Your task to perform on an android device: uninstall "Etsy: Buy & Sell Unique Items" Image 0: 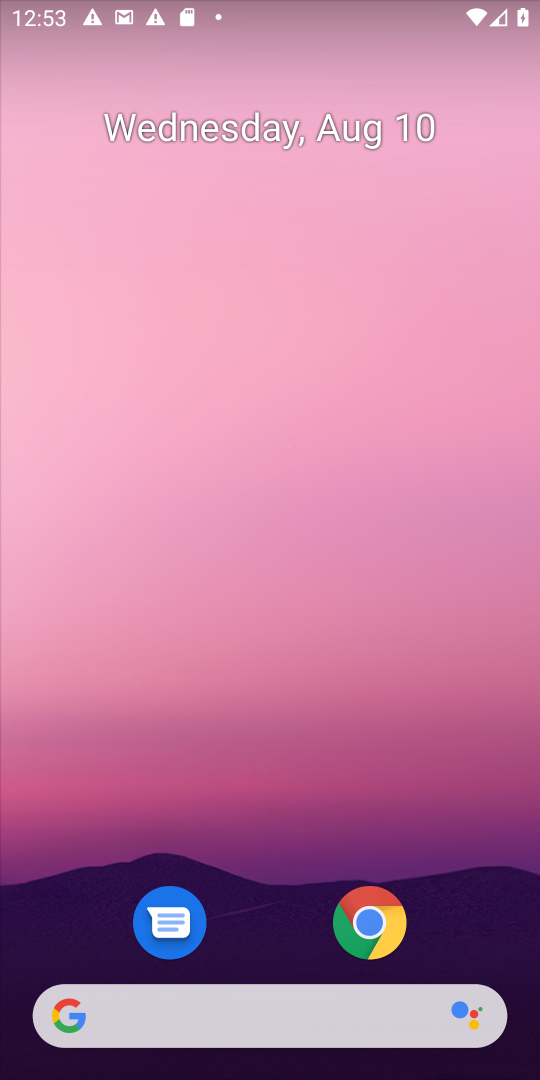
Step 0: drag from (266, 862) to (265, 357)
Your task to perform on an android device: uninstall "Etsy: Buy & Sell Unique Items" Image 1: 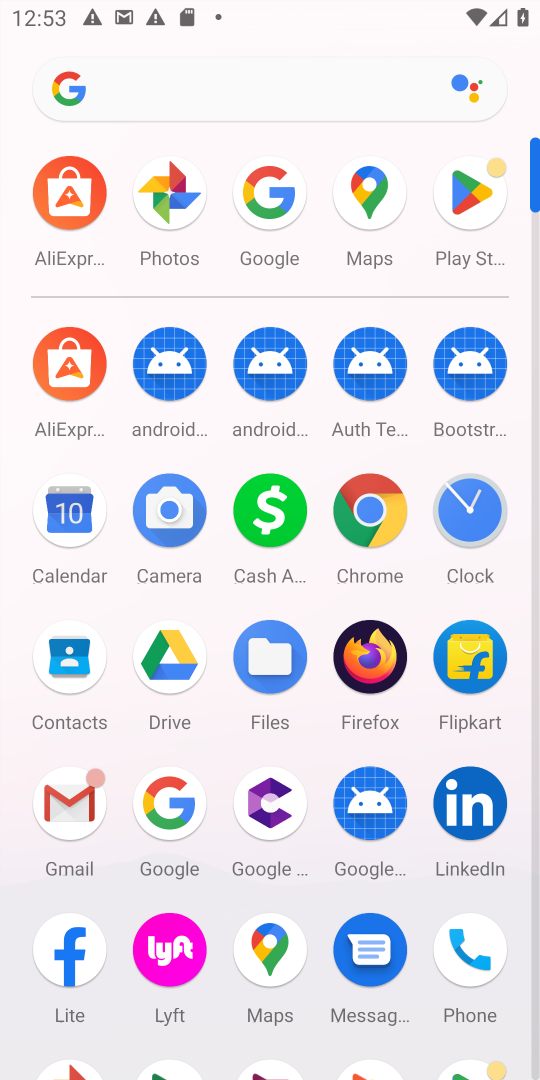
Step 1: click (470, 198)
Your task to perform on an android device: uninstall "Etsy: Buy & Sell Unique Items" Image 2: 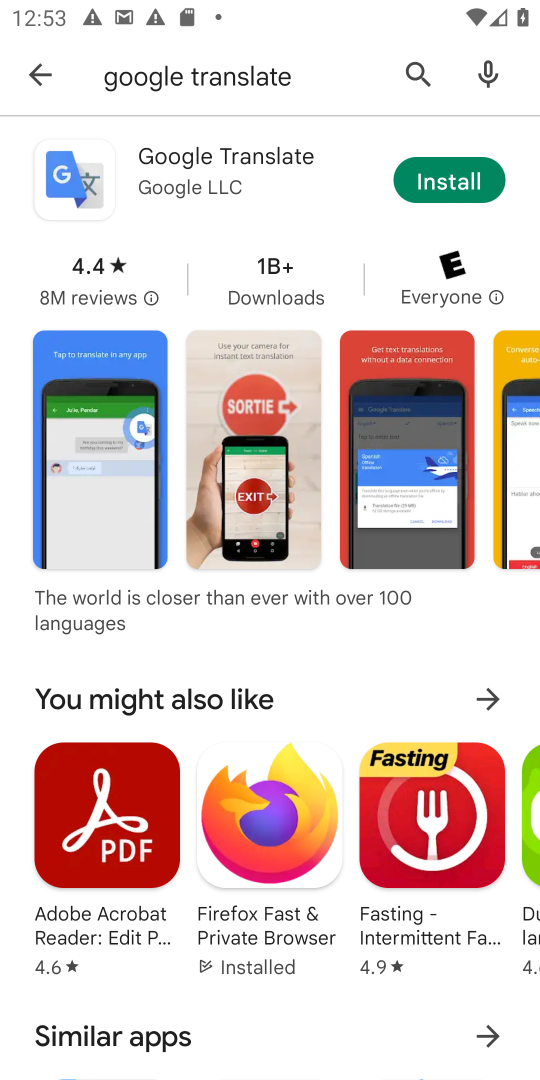
Step 2: click (31, 77)
Your task to perform on an android device: uninstall "Etsy: Buy & Sell Unique Items" Image 3: 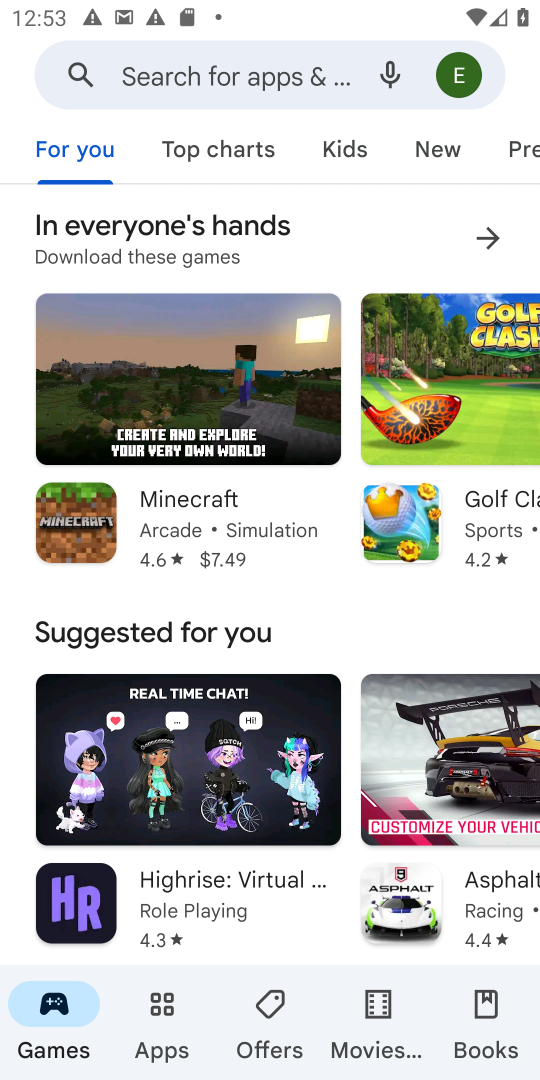
Step 3: click (185, 101)
Your task to perform on an android device: uninstall "Etsy: Buy & Sell Unique Items" Image 4: 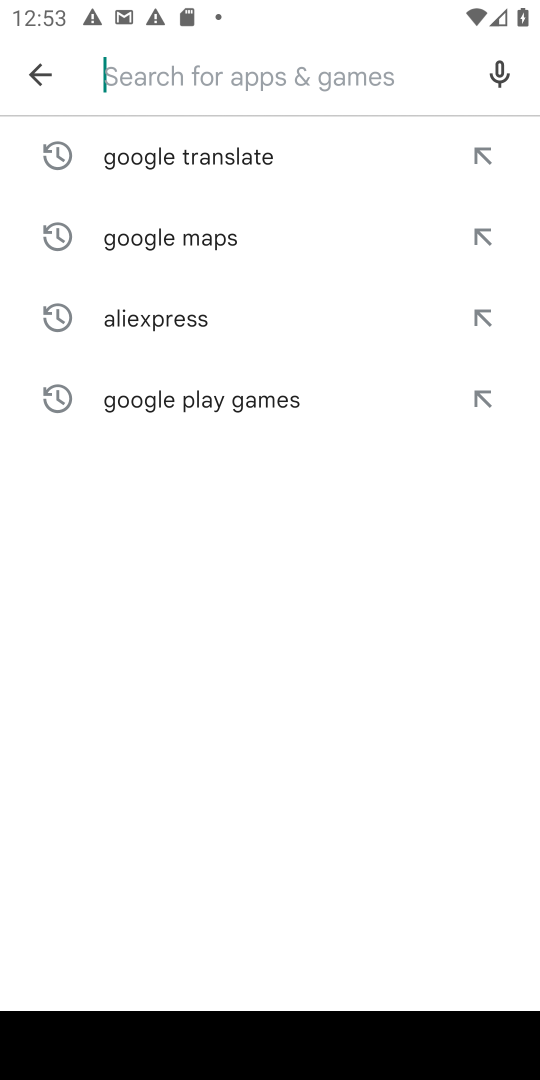
Step 4: type "Etsy: Buy & Sell Unique Items"
Your task to perform on an android device: uninstall "Etsy: Buy & Sell Unique Items" Image 5: 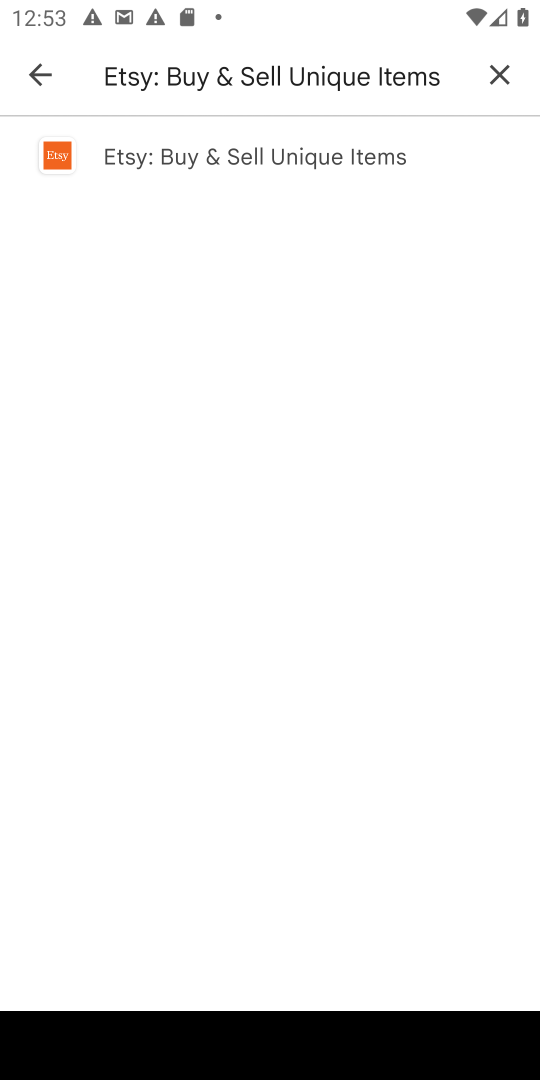
Step 5: click (233, 153)
Your task to perform on an android device: uninstall "Etsy: Buy & Sell Unique Items" Image 6: 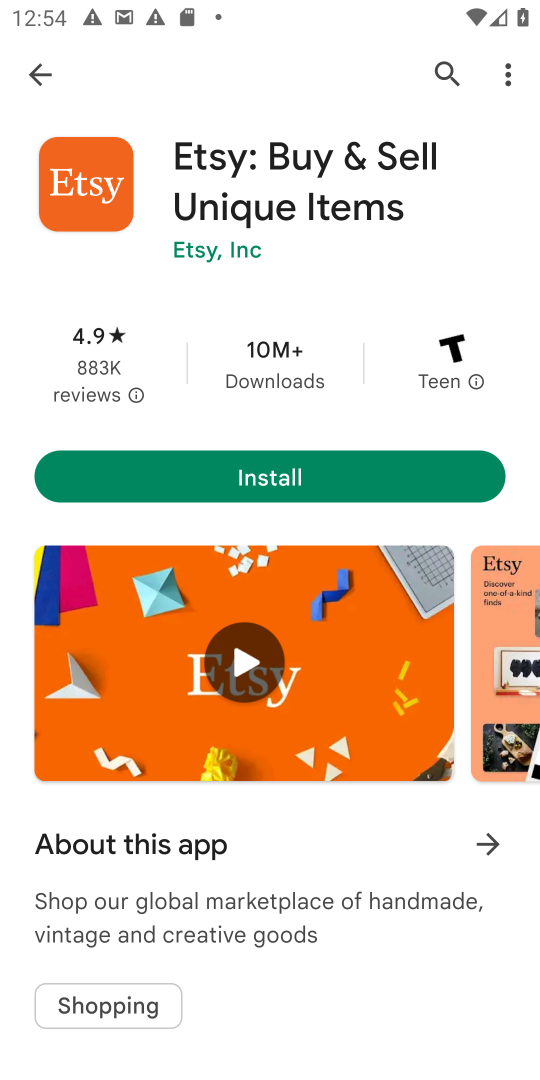
Step 6: task complete